Your task to perform on an android device: What is the news today? Image 0: 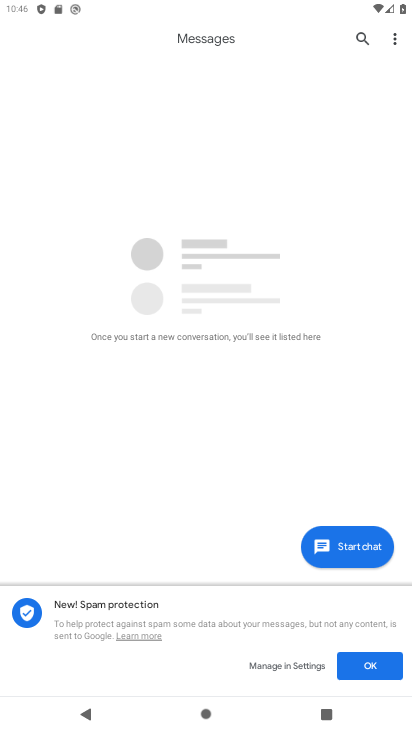
Step 0: press home button
Your task to perform on an android device: What is the news today? Image 1: 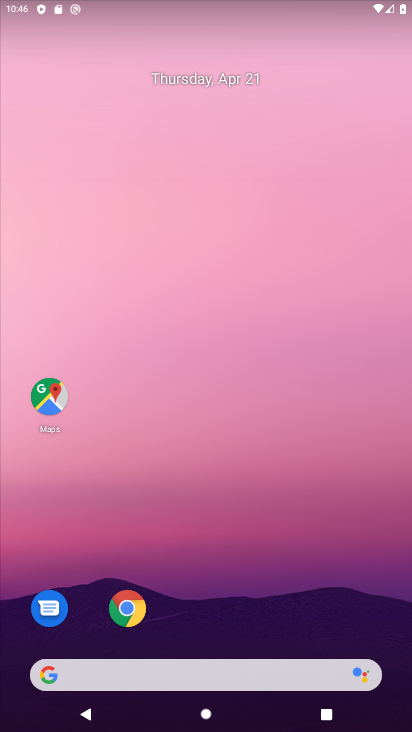
Step 1: click (127, 613)
Your task to perform on an android device: What is the news today? Image 2: 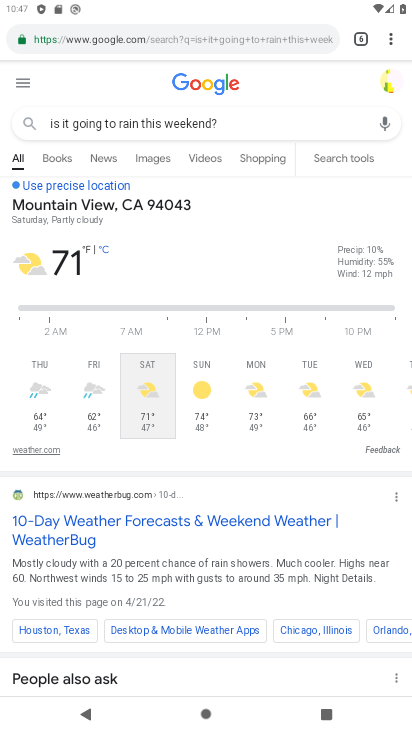
Step 2: click (358, 42)
Your task to perform on an android device: What is the news today? Image 3: 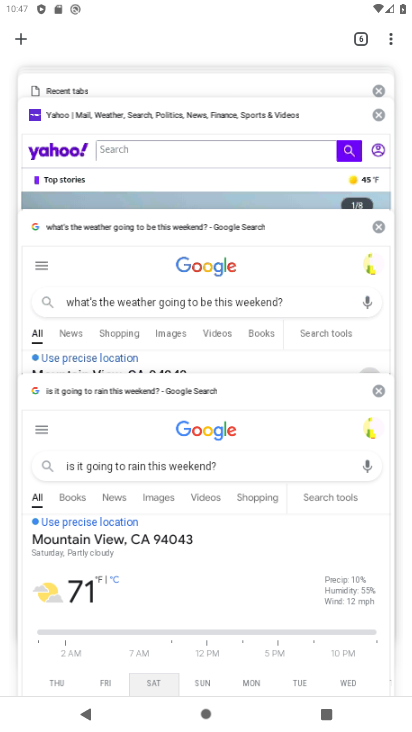
Step 3: click (18, 37)
Your task to perform on an android device: What is the news today? Image 4: 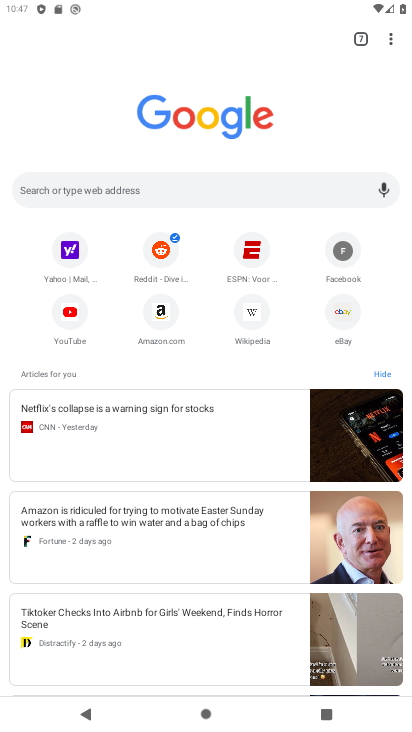
Step 4: click (157, 184)
Your task to perform on an android device: What is the news today? Image 5: 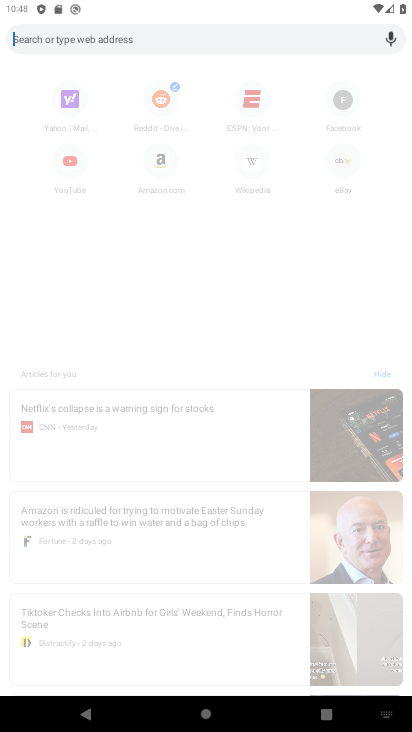
Step 5: type "what is the news today"
Your task to perform on an android device: What is the news today? Image 6: 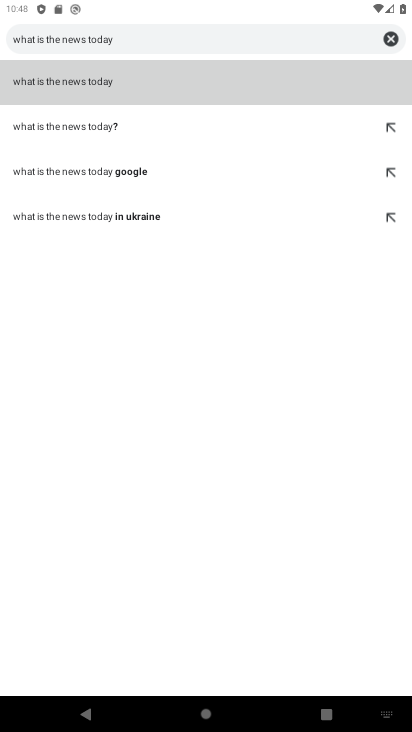
Step 6: click (71, 128)
Your task to perform on an android device: What is the news today? Image 7: 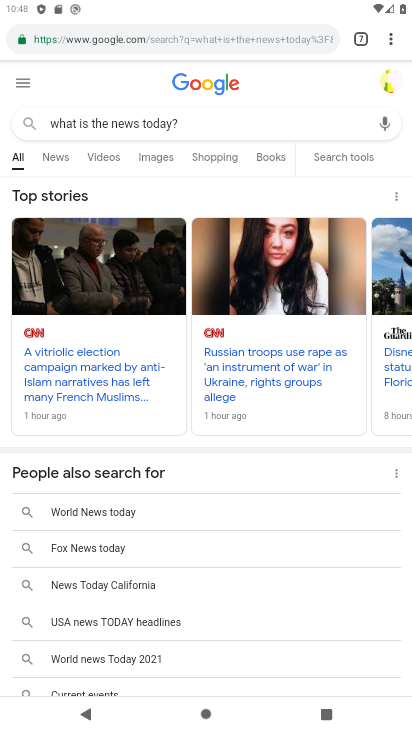
Step 7: task complete